Your task to perform on an android device: find photos in the google photos app Image 0: 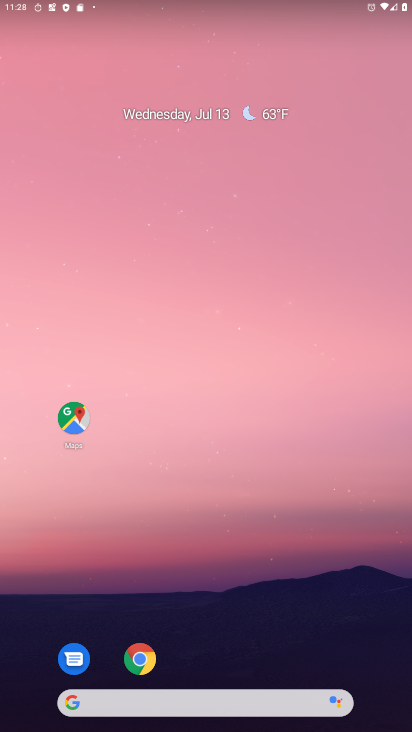
Step 0: drag from (299, 646) to (252, 136)
Your task to perform on an android device: find photos in the google photos app Image 1: 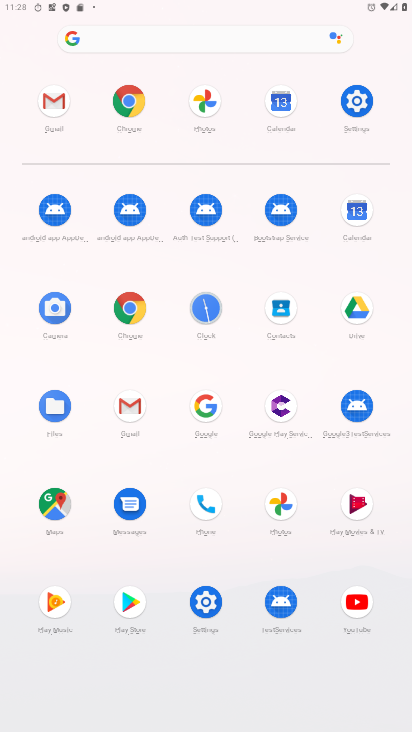
Step 1: click (196, 99)
Your task to perform on an android device: find photos in the google photos app Image 2: 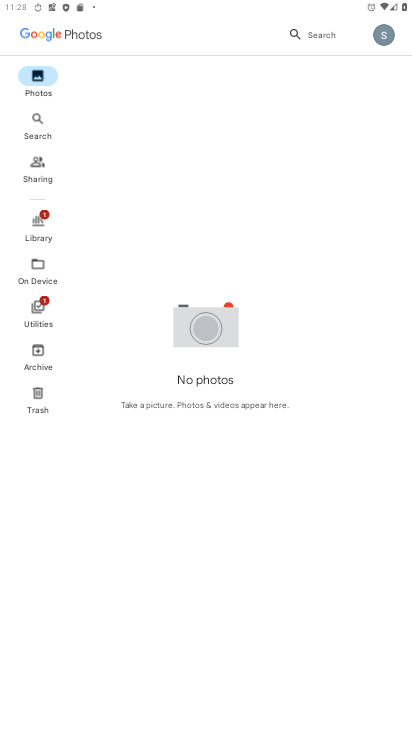
Step 2: task complete